Your task to perform on an android device: Go to Google maps Image 0: 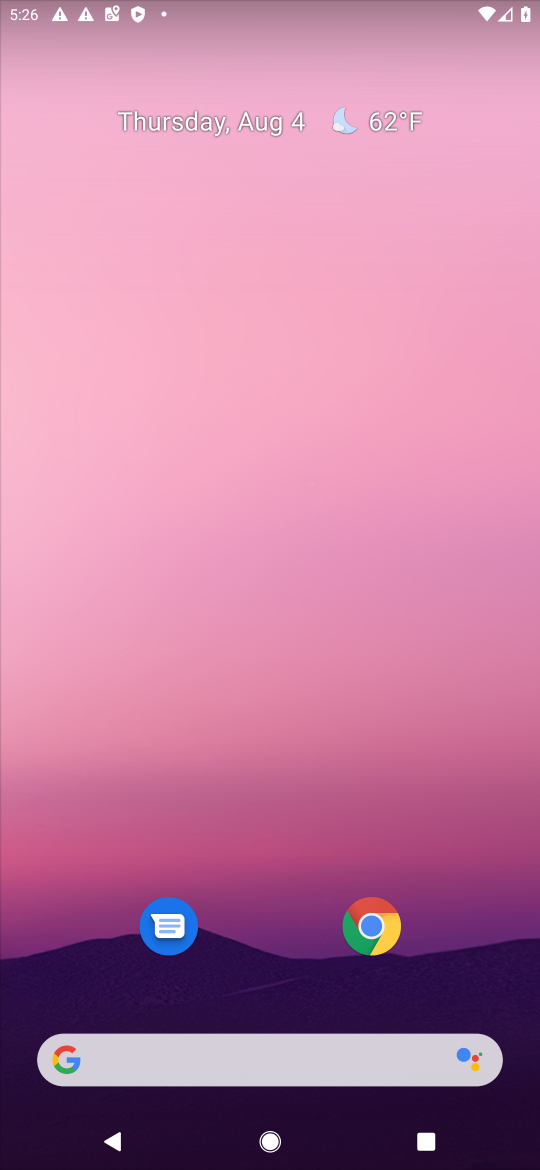
Step 0: press home button
Your task to perform on an android device: Go to Google maps Image 1: 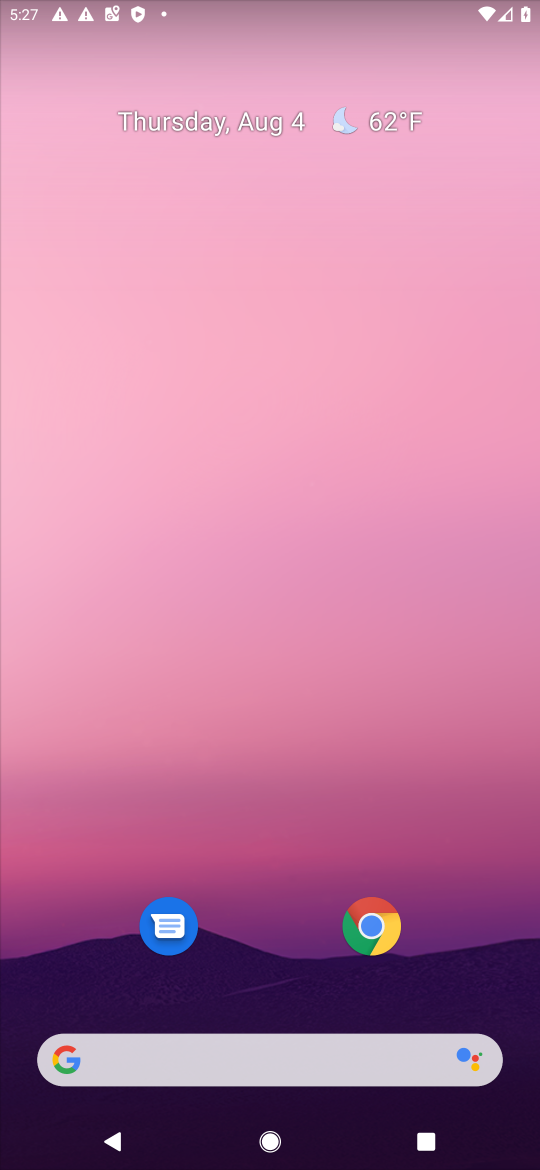
Step 1: drag from (321, 782) to (492, 21)
Your task to perform on an android device: Go to Google maps Image 2: 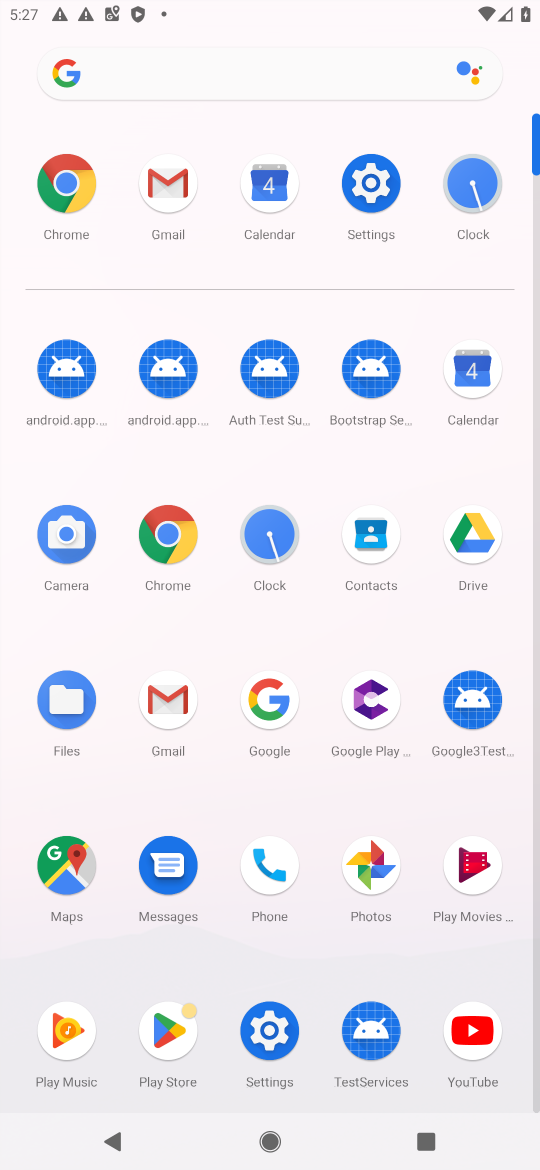
Step 2: click (55, 861)
Your task to perform on an android device: Go to Google maps Image 3: 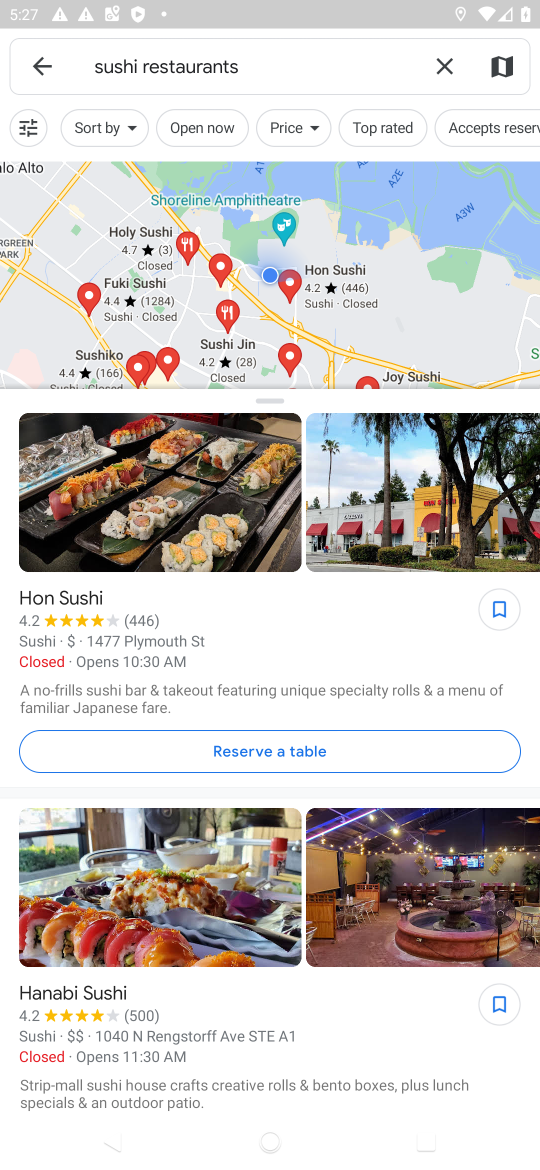
Step 3: click (450, 70)
Your task to perform on an android device: Go to Google maps Image 4: 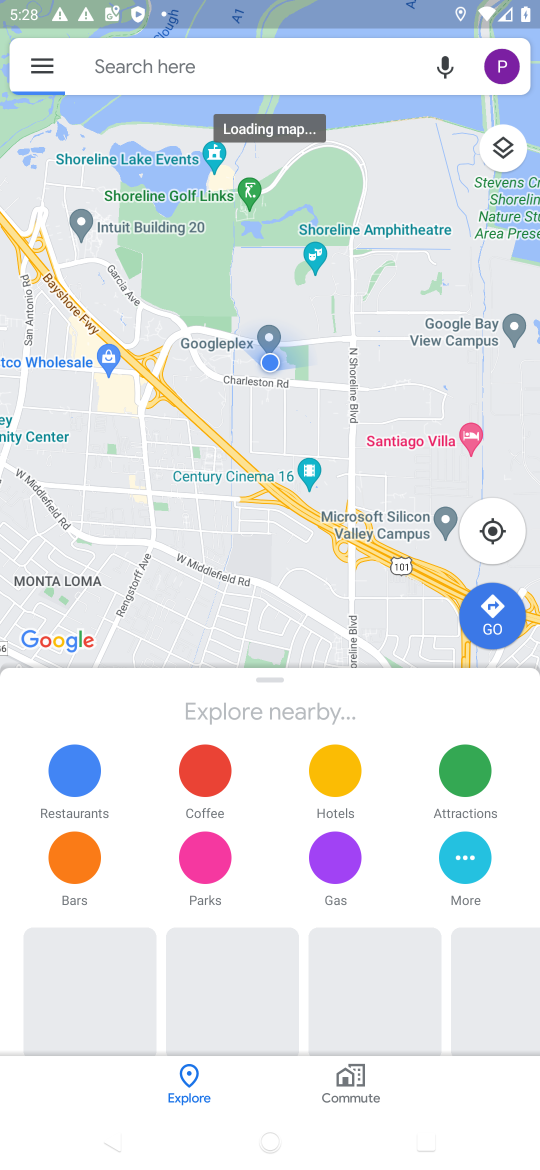
Step 4: task complete